Your task to perform on an android device: toggle wifi Image 0: 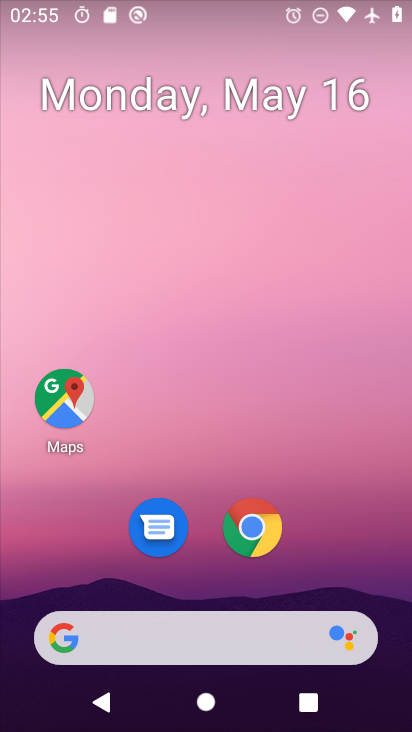
Step 0: press home button
Your task to perform on an android device: toggle wifi Image 1: 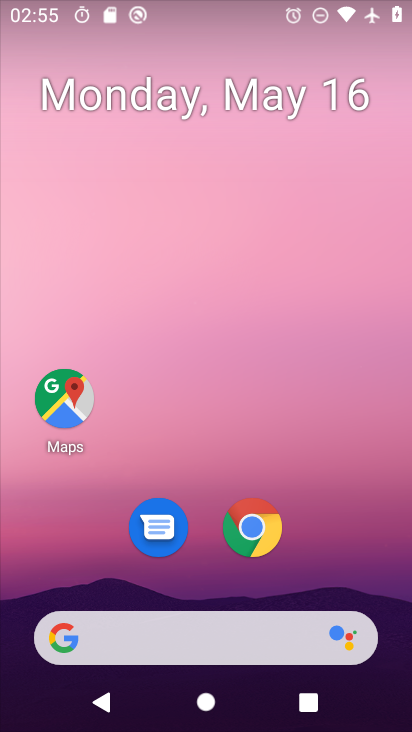
Step 1: drag from (184, 595) to (366, 60)
Your task to perform on an android device: toggle wifi Image 2: 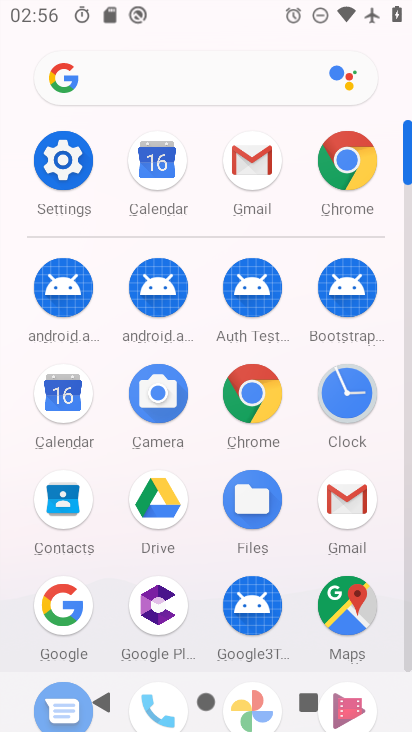
Step 2: click (63, 161)
Your task to perform on an android device: toggle wifi Image 3: 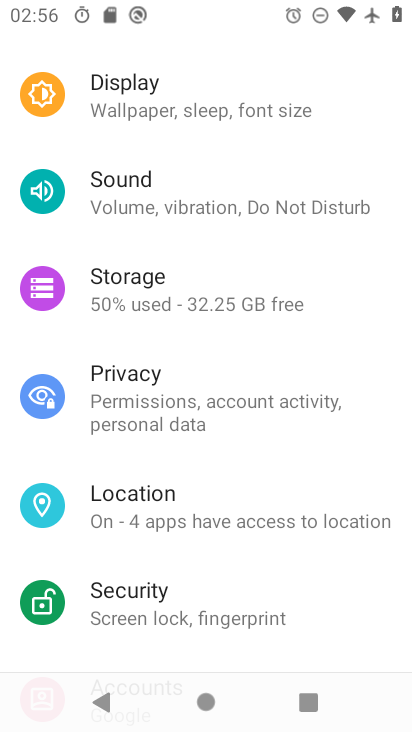
Step 3: drag from (320, 75) to (230, 500)
Your task to perform on an android device: toggle wifi Image 4: 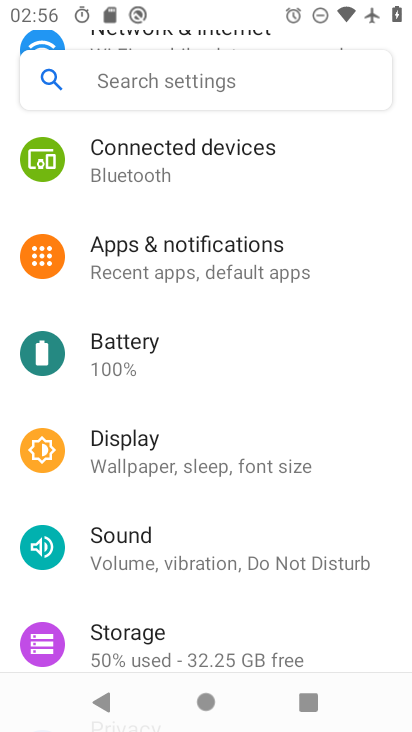
Step 4: drag from (311, 140) to (248, 549)
Your task to perform on an android device: toggle wifi Image 5: 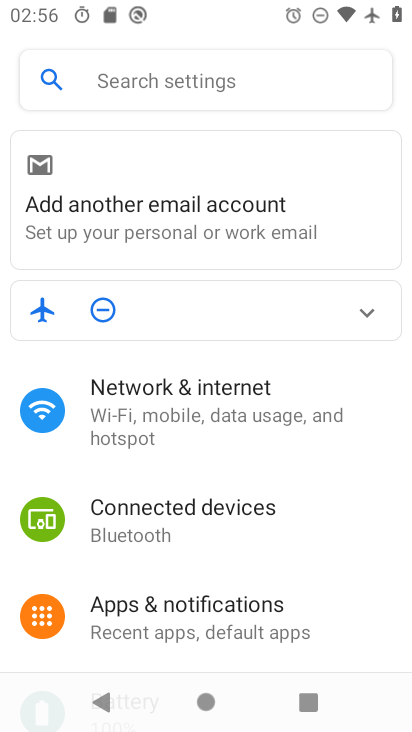
Step 5: click (253, 401)
Your task to perform on an android device: toggle wifi Image 6: 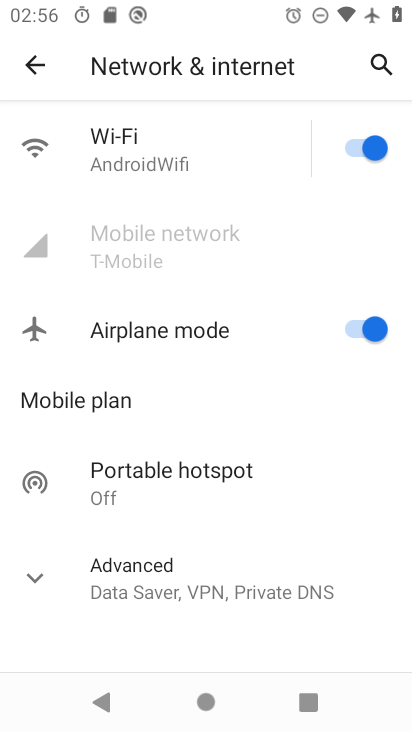
Step 6: click (150, 163)
Your task to perform on an android device: toggle wifi Image 7: 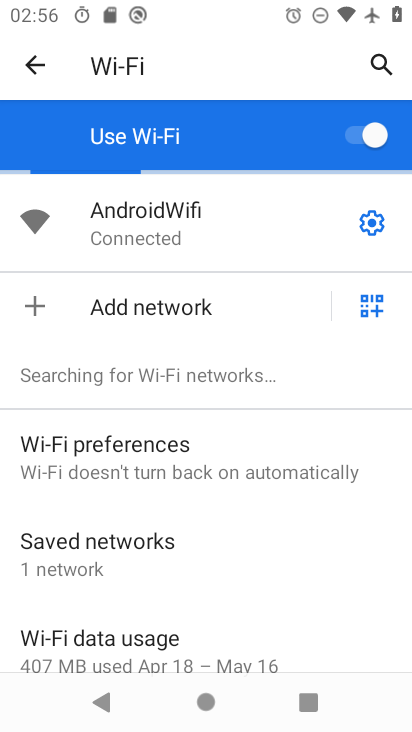
Step 7: click (45, 55)
Your task to perform on an android device: toggle wifi Image 8: 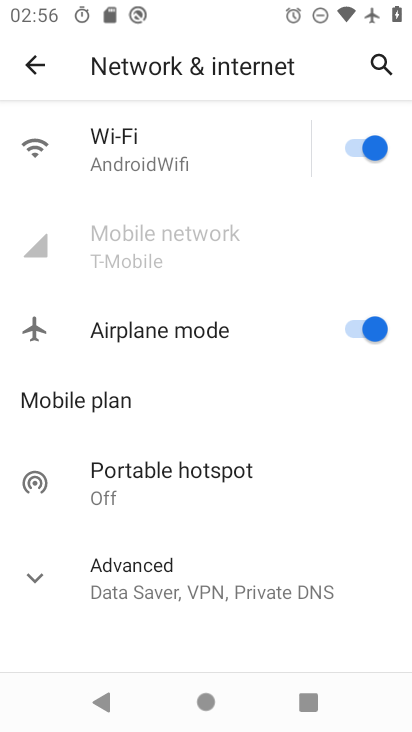
Step 8: click (351, 148)
Your task to perform on an android device: toggle wifi Image 9: 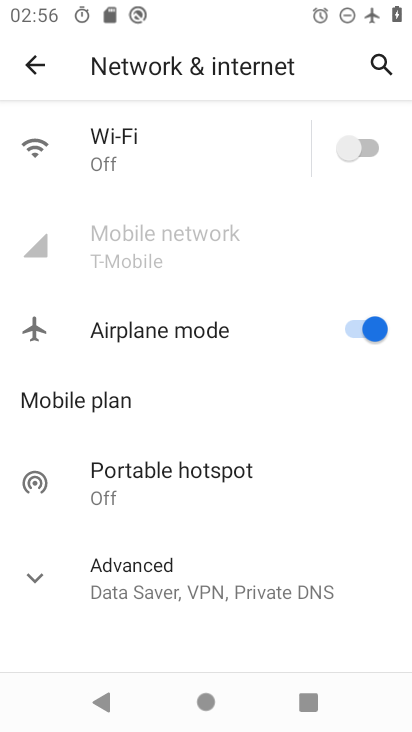
Step 9: task complete